Your task to perform on an android device: Open Chrome and go to settings Image 0: 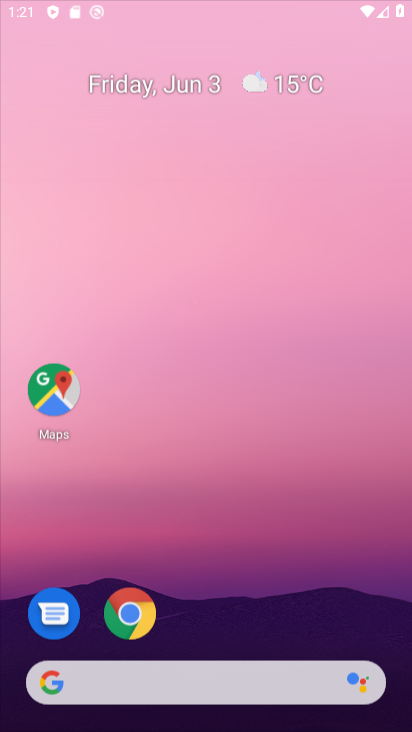
Step 0: click (336, 158)
Your task to perform on an android device: Open Chrome and go to settings Image 1: 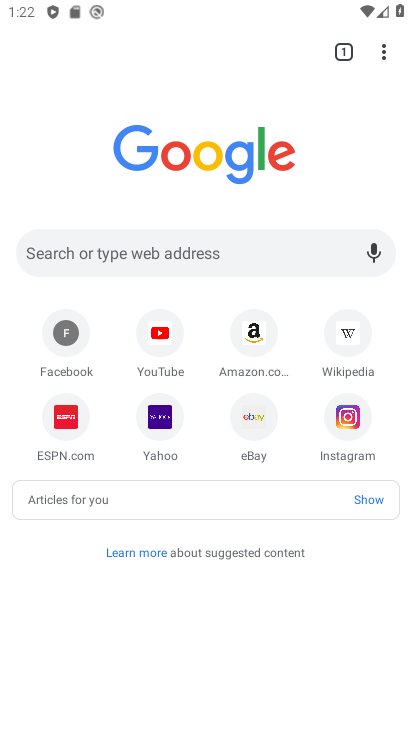
Step 1: drag from (289, 619) to (256, 202)
Your task to perform on an android device: Open Chrome and go to settings Image 2: 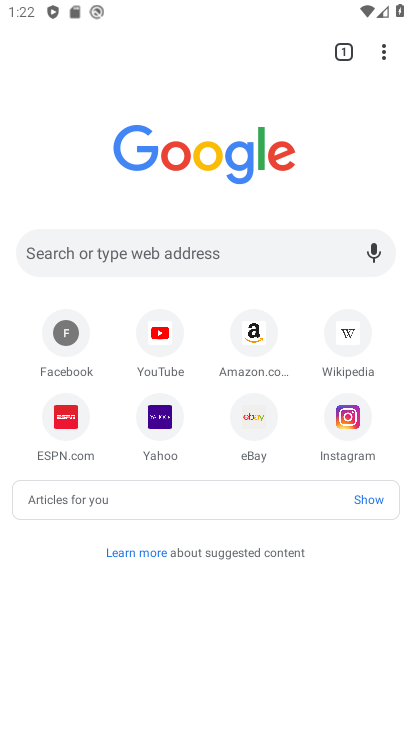
Step 2: click (389, 60)
Your task to perform on an android device: Open Chrome and go to settings Image 3: 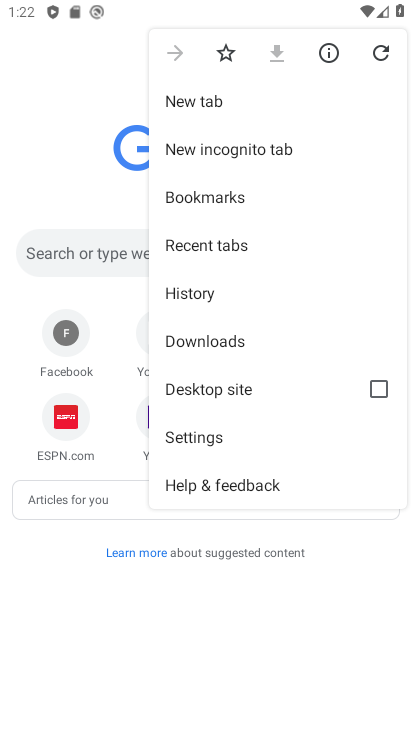
Step 3: click (232, 437)
Your task to perform on an android device: Open Chrome and go to settings Image 4: 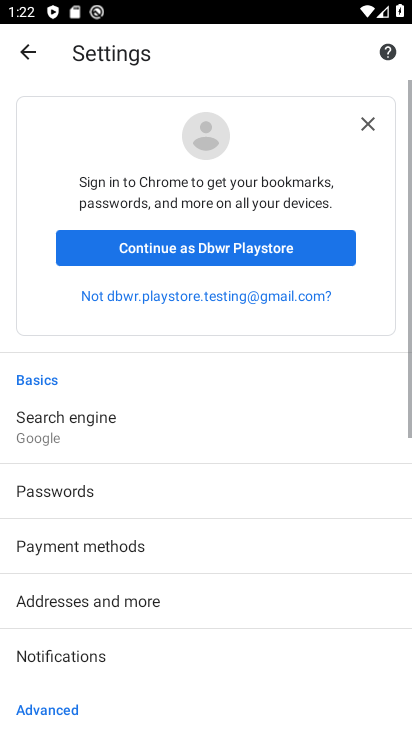
Step 4: task complete